Your task to perform on an android device: turn pop-ups on in chrome Image 0: 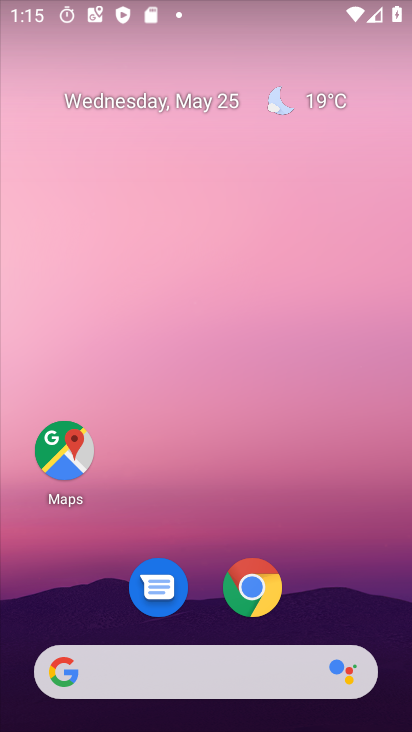
Step 0: drag from (235, 714) to (237, 163)
Your task to perform on an android device: turn pop-ups on in chrome Image 1: 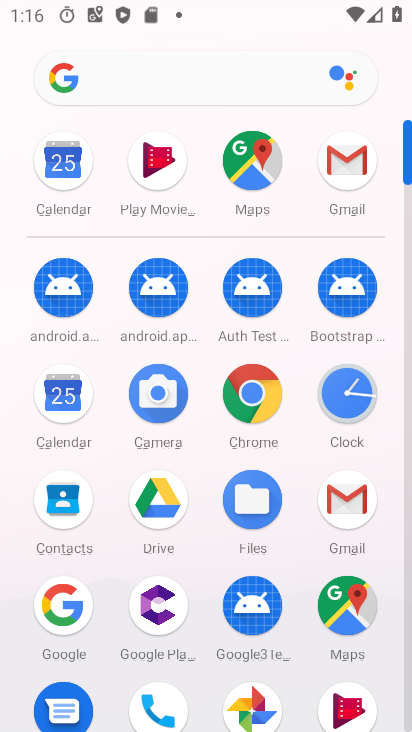
Step 1: click (255, 396)
Your task to perform on an android device: turn pop-ups on in chrome Image 2: 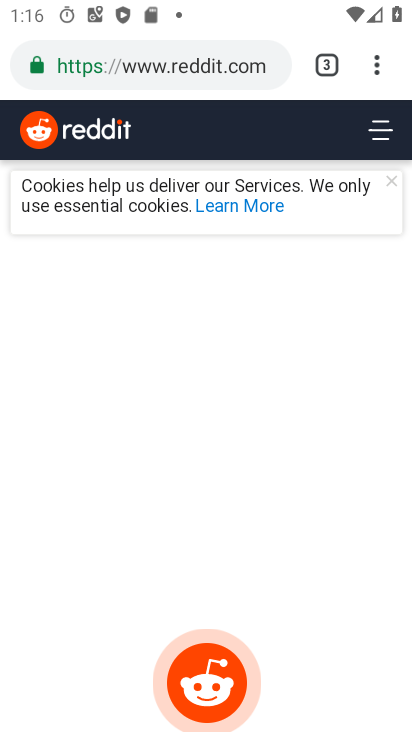
Step 2: click (376, 72)
Your task to perform on an android device: turn pop-ups on in chrome Image 3: 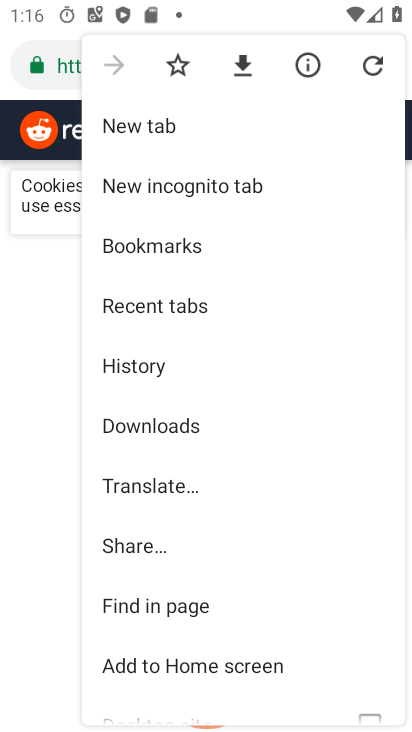
Step 3: drag from (160, 635) to (177, 340)
Your task to perform on an android device: turn pop-ups on in chrome Image 4: 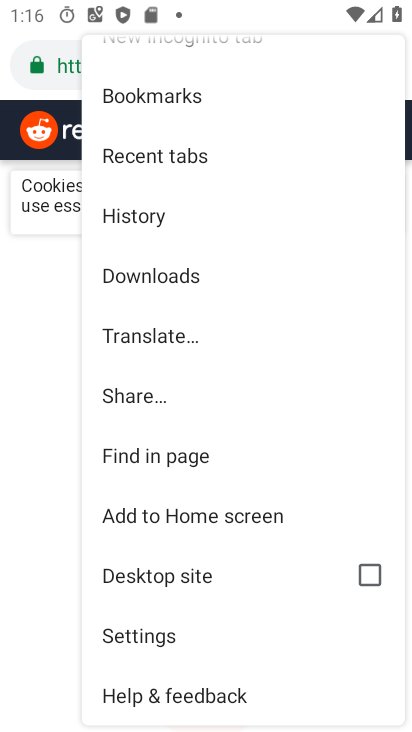
Step 4: click (158, 632)
Your task to perform on an android device: turn pop-ups on in chrome Image 5: 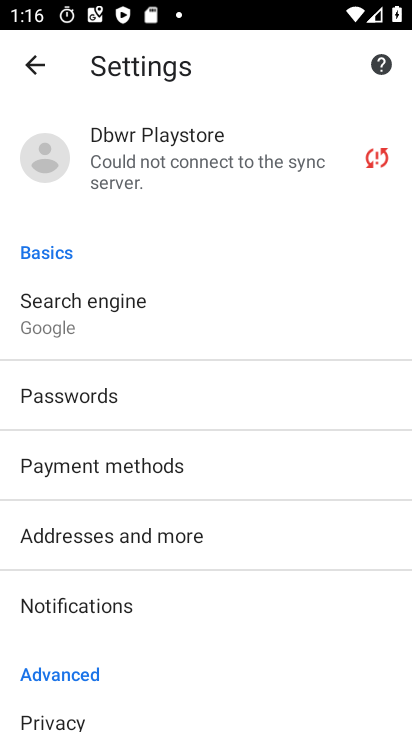
Step 5: drag from (153, 657) to (159, 366)
Your task to perform on an android device: turn pop-ups on in chrome Image 6: 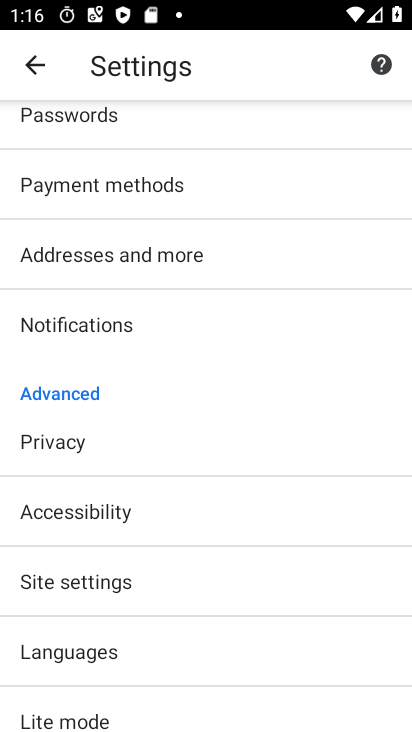
Step 6: drag from (106, 637) to (121, 323)
Your task to perform on an android device: turn pop-ups on in chrome Image 7: 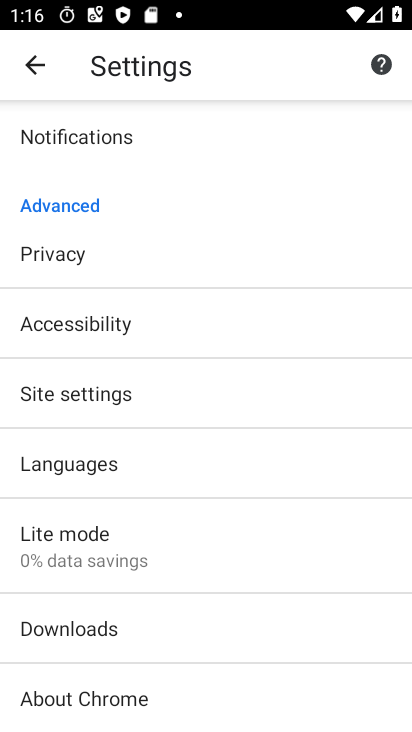
Step 7: drag from (97, 660) to (107, 341)
Your task to perform on an android device: turn pop-ups on in chrome Image 8: 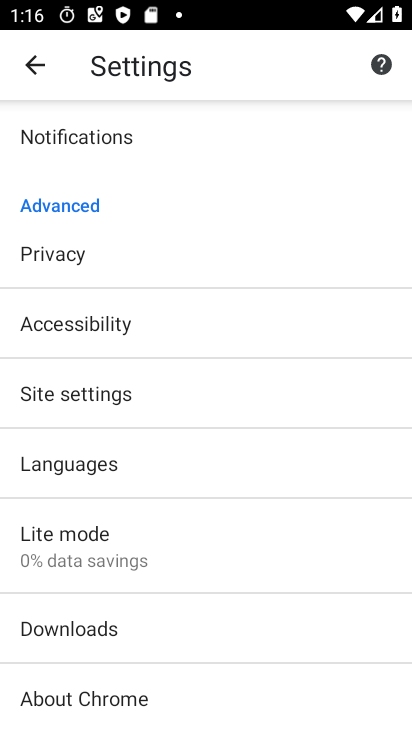
Step 8: click (85, 392)
Your task to perform on an android device: turn pop-ups on in chrome Image 9: 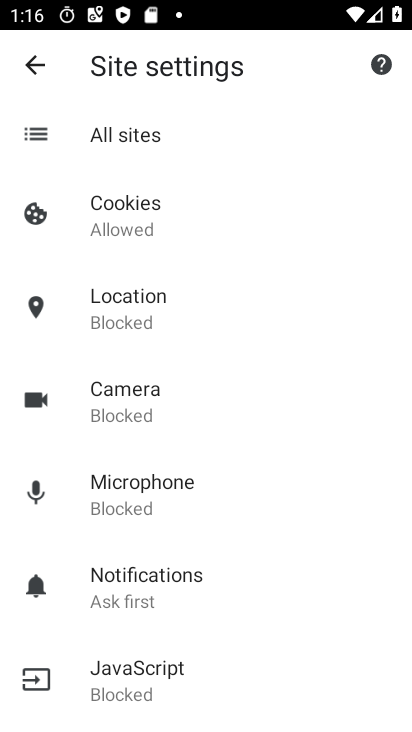
Step 9: drag from (106, 622) to (110, 337)
Your task to perform on an android device: turn pop-ups on in chrome Image 10: 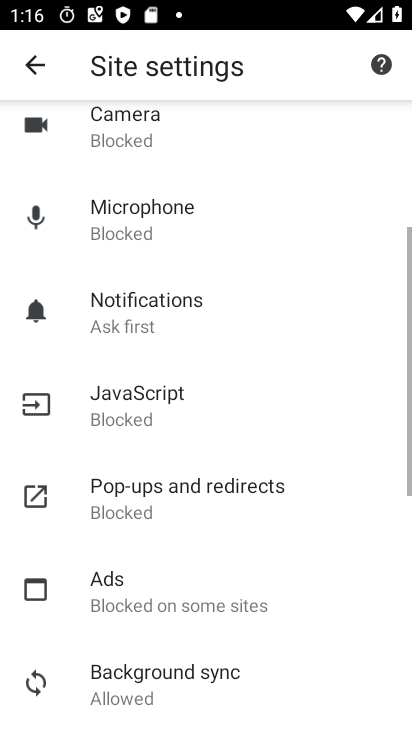
Step 10: click (112, 485)
Your task to perform on an android device: turn pop-ups on in chrome Image 11: 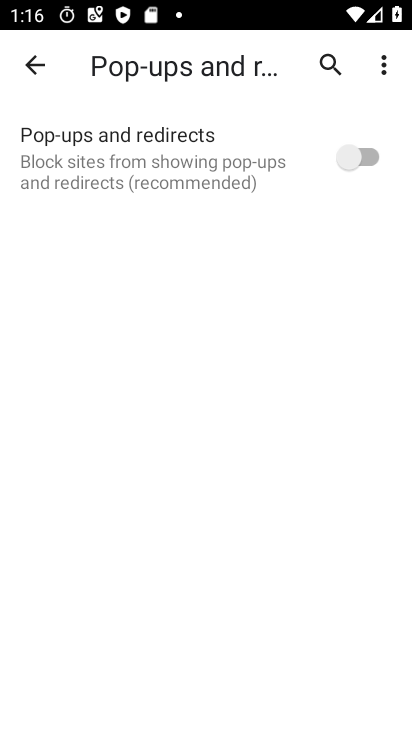
Step 11: click (370, 158)
Your task to perform on an android device: turn pop-ups on in chrome Image 12: 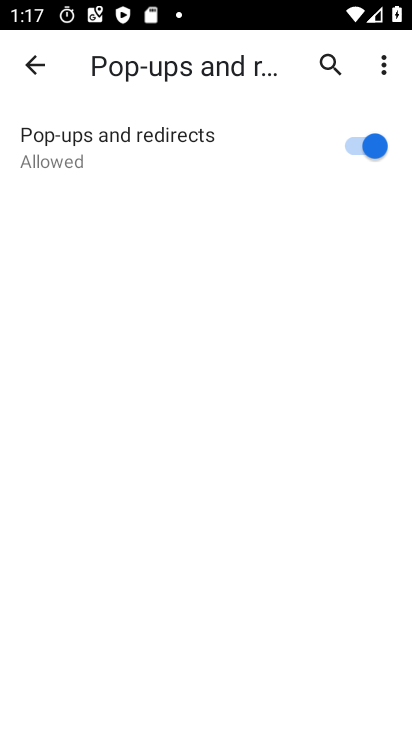
Step 12: task complete